Your task to perform on an android device: Open ESPN.com Image 0: 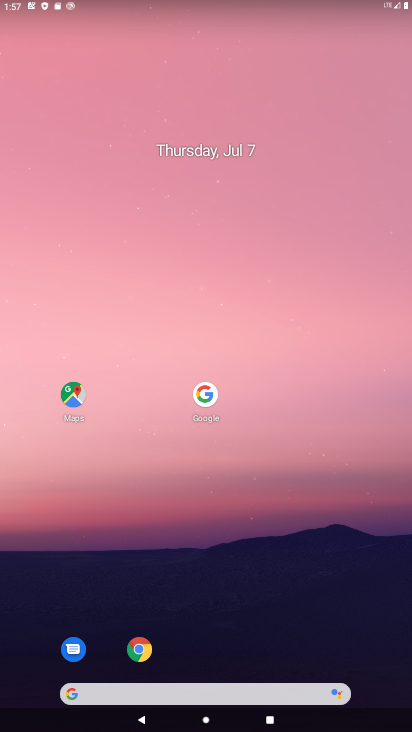
Step 0: click (122, 692)
Your task to perform on an android device: Open ESPN.com Image 1: 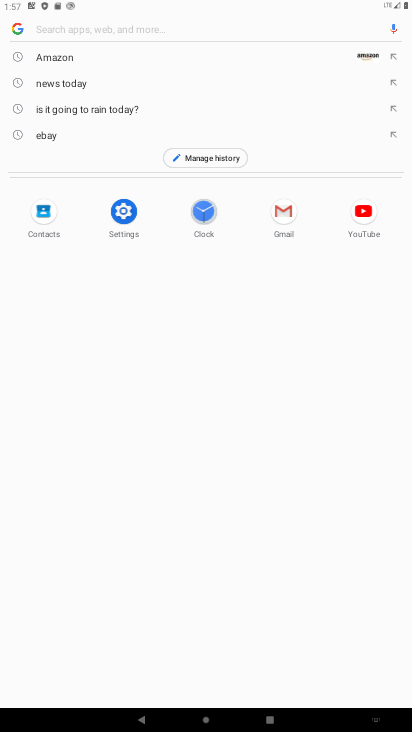
Step 1: type "ESPN.com"
Your task to perform on an android device: Open ESPN.com Image 2: 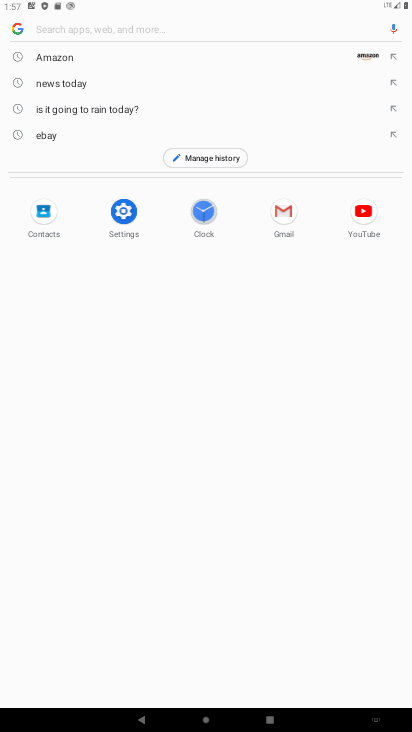
Step 2: click (103, 26)
Your task to perform on an android device: Open ESPN.com Image 3: 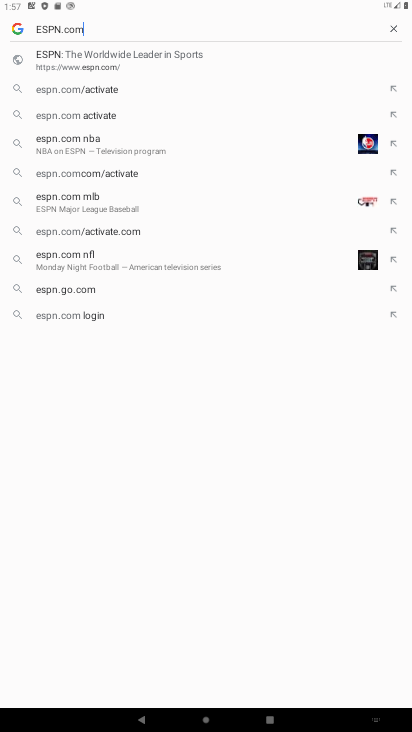
Step 3: press enter
Your task to perform on an android device: Open ESPN.com Image 4: 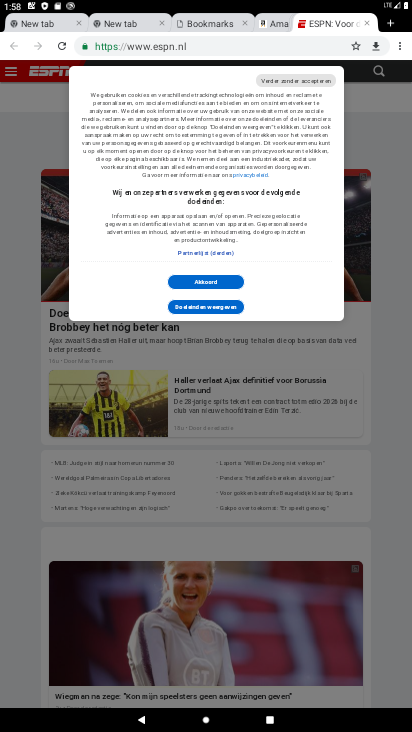
Step 4: task complete